Your task to perform on an android device: toggle priority inbox in the gmail app Image 0: 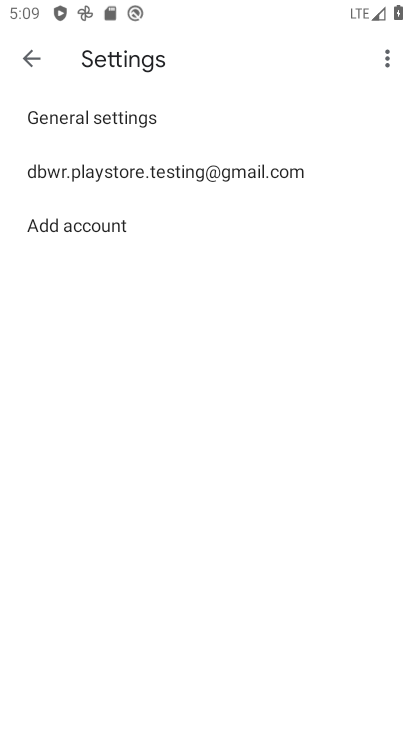
Step 0: drag from (159, 579) to (245, 104)
Your task to perform on an android device: toggle priority inbox in the gmail app Image 1: 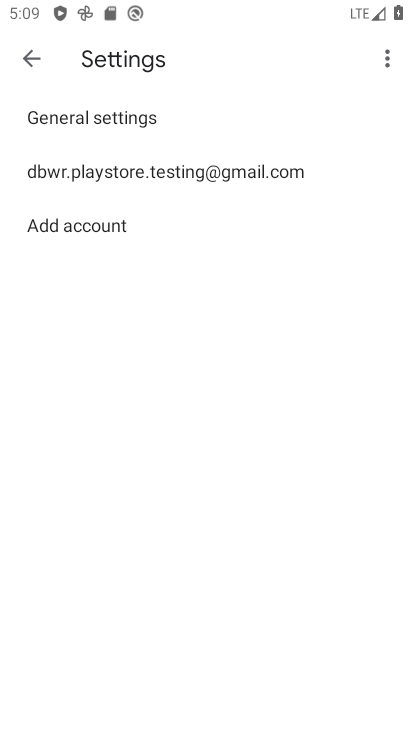
Step 1: press home button
Your task to perform on an android device: toggle priority inbox in the gmail app Image 2: 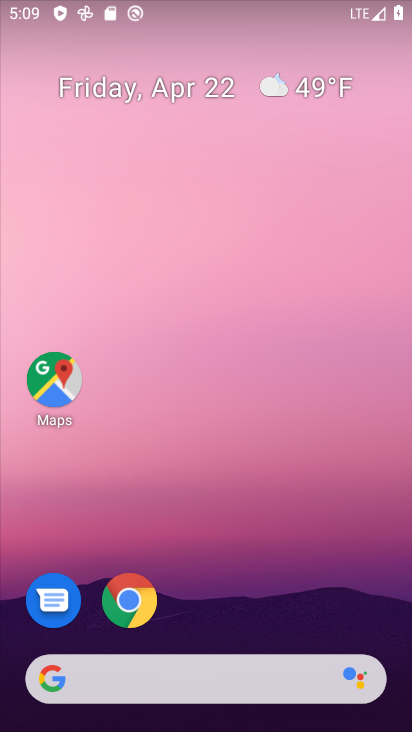
Step 2: drag from (213, 511) to (290, 29)
Your task to perform on an android device: toggle priority inbox in the gmail app Image 3: 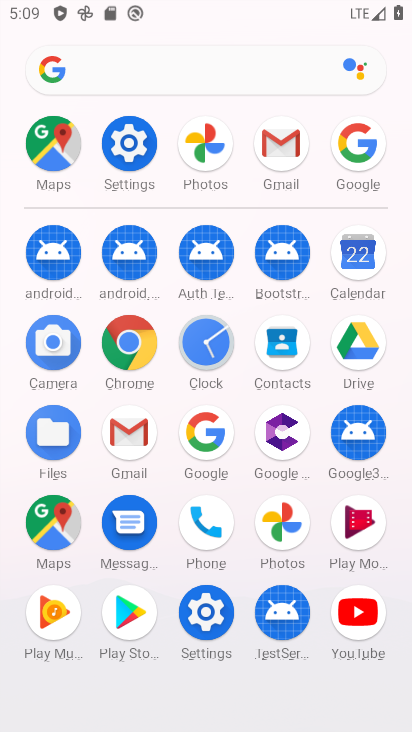
Step 3: click (124, 437)
Your task to perform on an android device: toggle priority inbox in the gmail app Image 4: 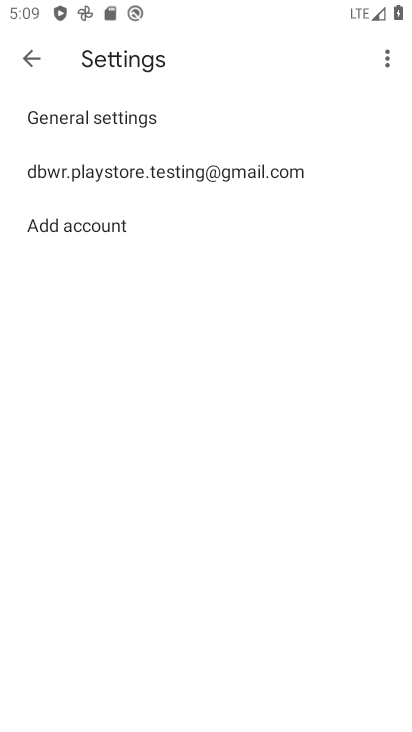
Step 4: click (99, 164)
Your task to perform on an android device: toggle priority inbox in the gmail app Image 5: 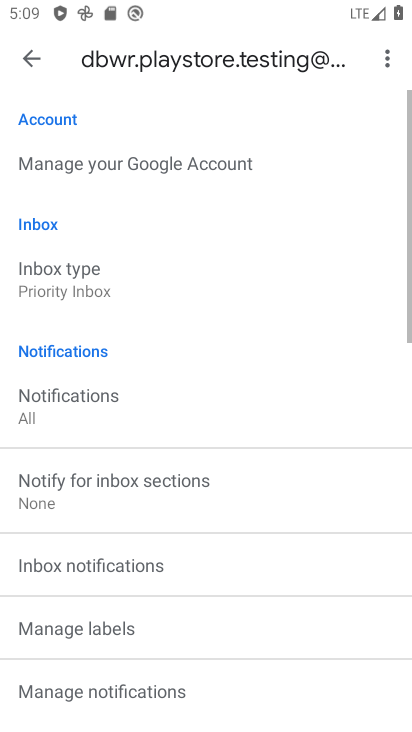
Step 5: drag from (146, 498) to (198, 380)
Your task to perform on an android device: toggle priority inbox in the gmail app Image 6: 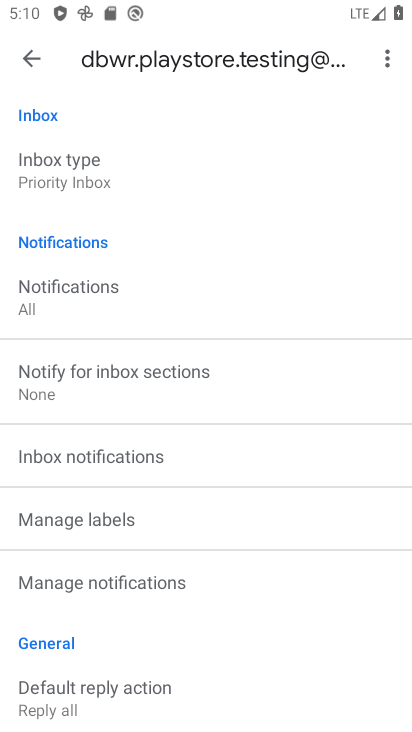
Step 6: click (83, 184)
Your task to perform on an android device: toggle priority inbox in the gmail app Image 7: 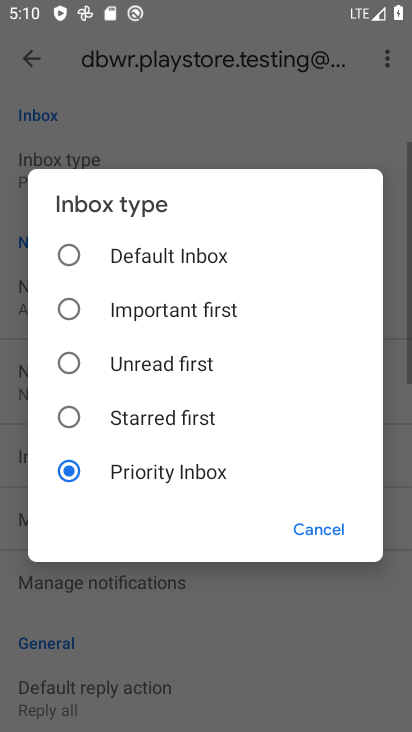
Step 7: click (116, 258)
Your task to perform on an android device: toggle priority inbox in the gmail app Image 8: 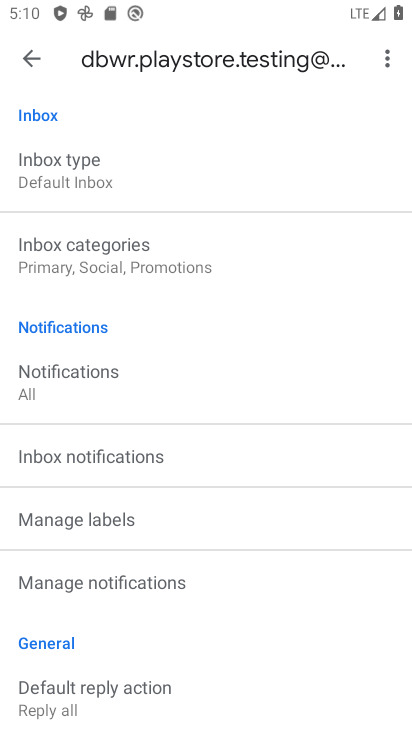
Step 8: task complete